Your task to perform on an android device: Open network settings Image 0: 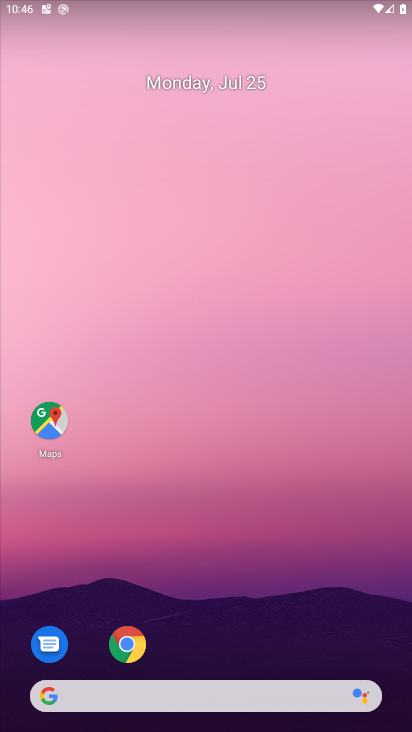
Step 0: press home button
Your task to perform on an android device: Open network settings Image 1: 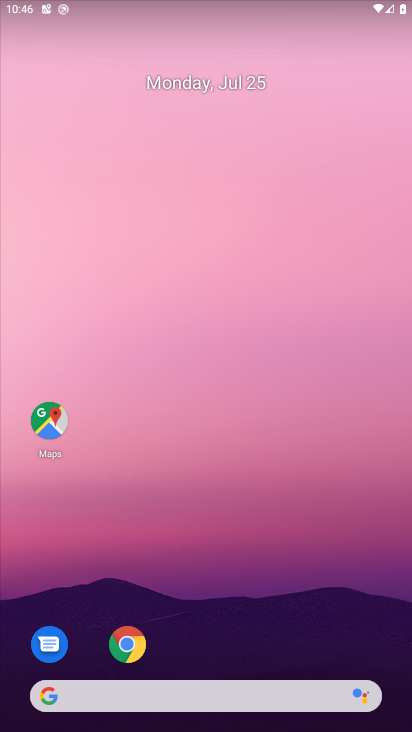
Step 1: drag from (257, 648) to (259, 478)
Your task to perform on an android device: Open network settings Image 2: 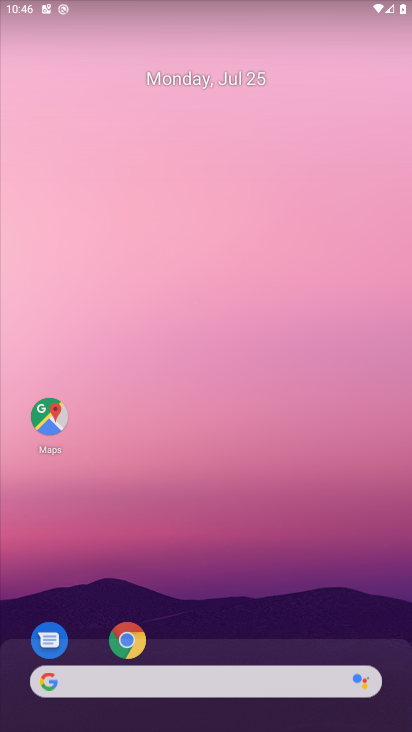
Step 2: click (266, 221)
Your task to perform on an android device: Open network settings Image 3: 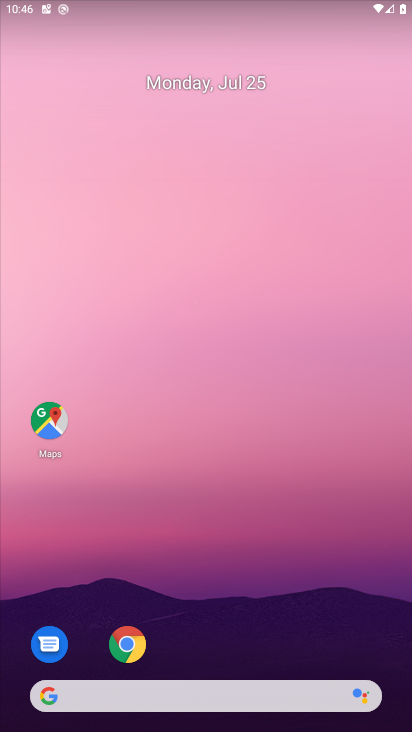
Step 3: drag from (265, 613) to (275, 0)
Your task to perform on an android device: Open network settings Image 4: 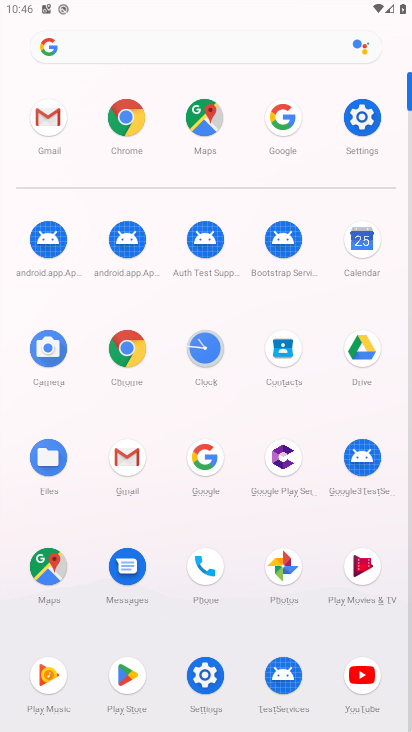
Step 4: click (346, 121)
Your task to perform on an android device: Open network settings Image 5: 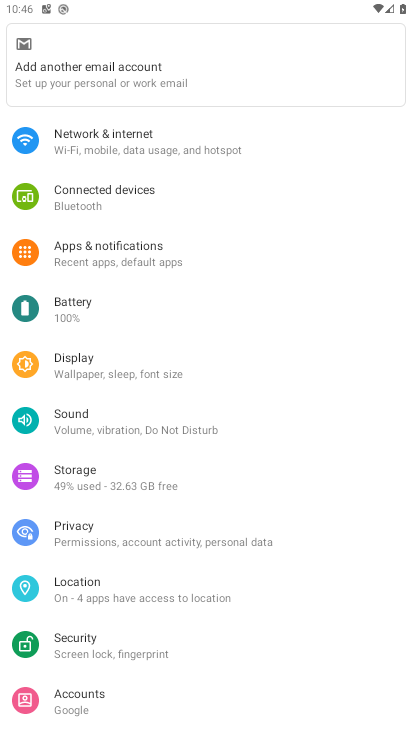
Step 5: click (95, 121)
Your task to perform on an android device: Open network settings Image 6: 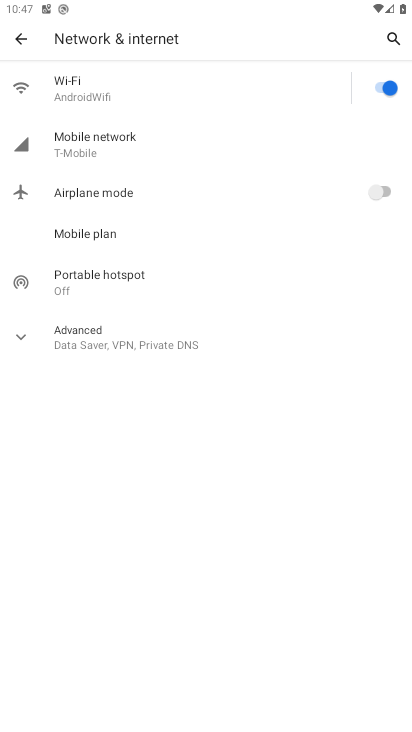
Step 6: task complete